Your task to perform on an android device: make emails show in primary in the gmail app Image 0: 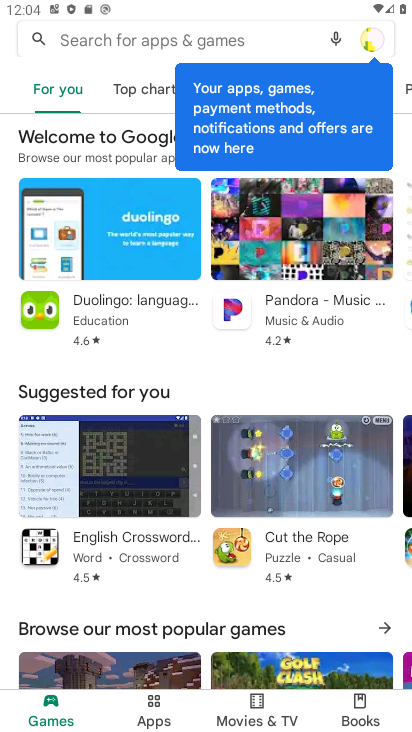
Step 0: press home button
Your task to perform on an android device: make emails show in primary in the gmail app Image 1: 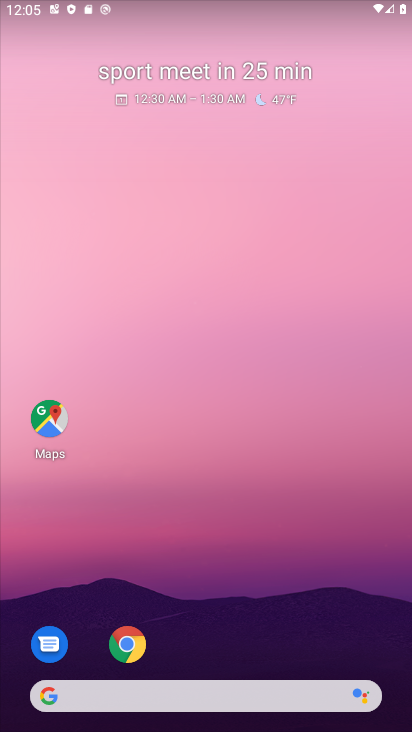
Step 1: drag from (106, 711) to (248, 159)
Your task to perform on an android device: make emails show in primary in the gmail app Image 2: 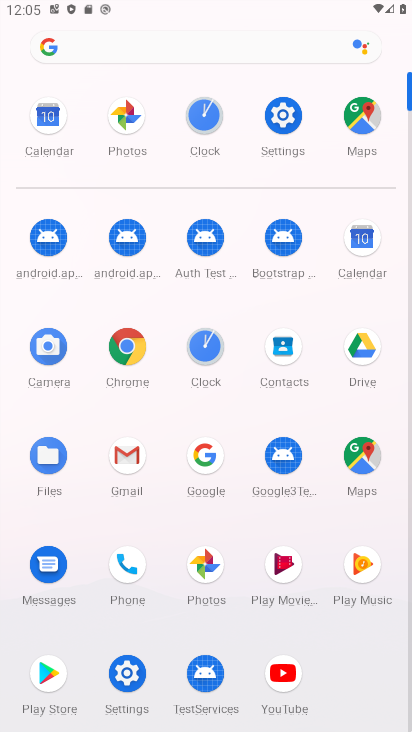
Step 2: click (133, 456)
Your task to perform on an android device: make emails show in primary in the gmail app Image 3: 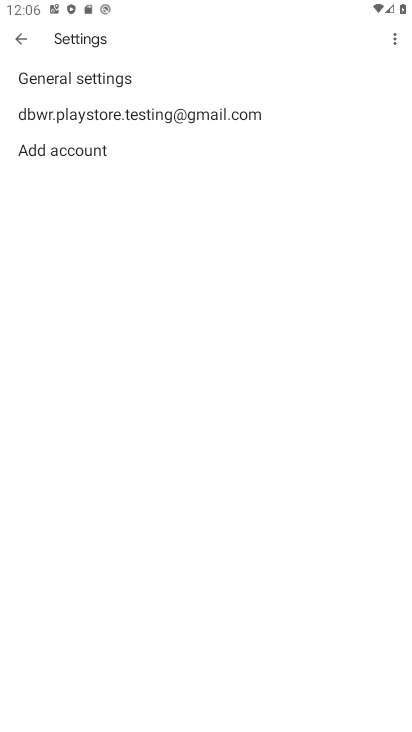
Step 3: click (129, 111)
Your task to perform on an android device: make emails show in primary in the gmail app Image 4: 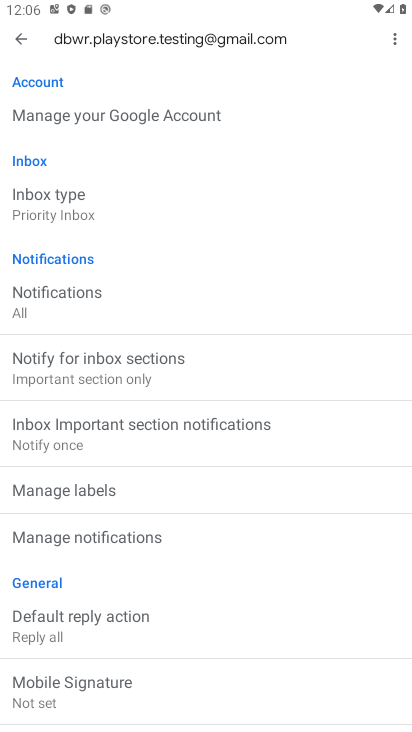
Step 4: task complete